Your task to perform on an android device: Toggle the flashlight Image 0: 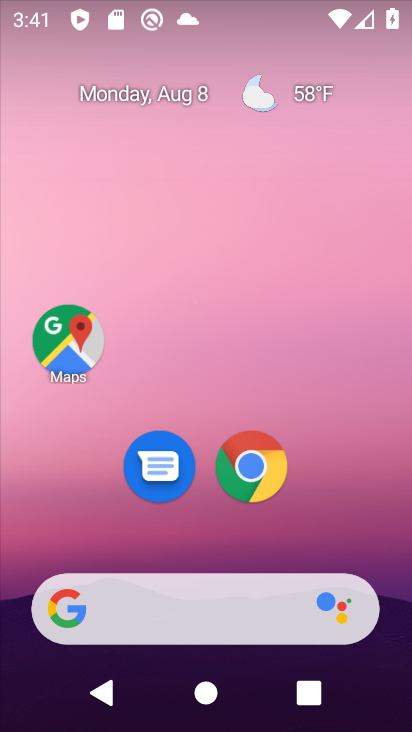
Step 0: drag from (207, 580) to (225, 144)
Your task to perform on an android device: Toggle the flashlight Image 1: 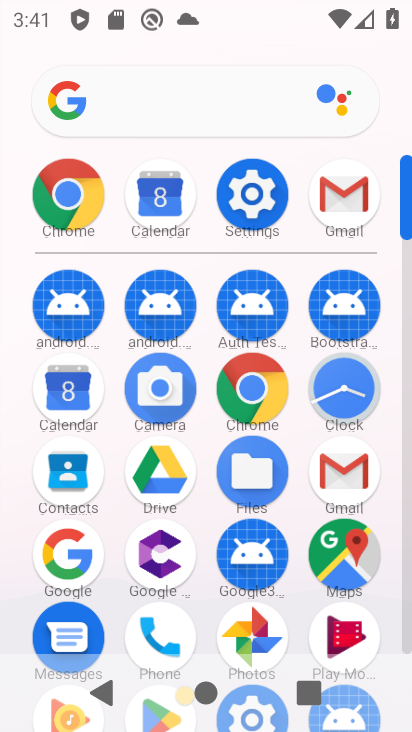
Step 1: click (252, 187)
Your task to perform on an android device: Toggle the flashlight Image 2: 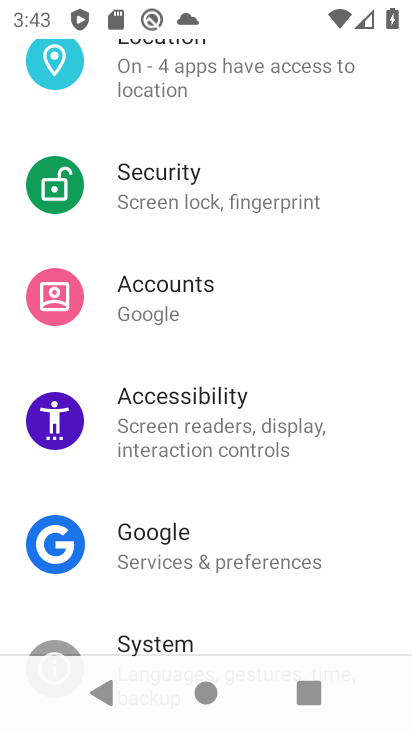
Step 2: task complete